Your task to perform on an android device: toggle improve location accuracy Image 0: 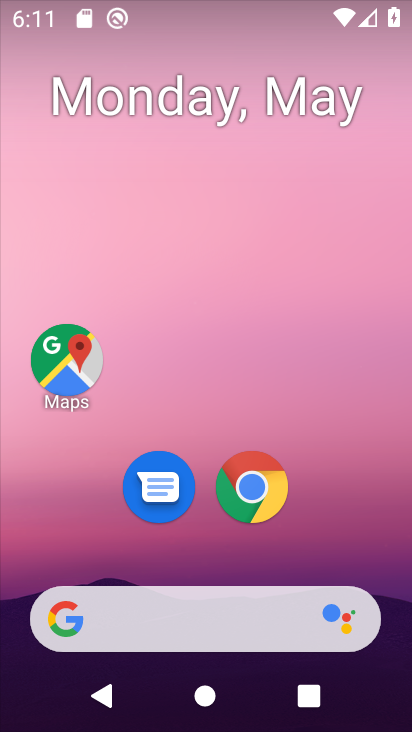
Step 0: press home button
Your task to perform on an android device: toggle improve location accuracy Image 1: 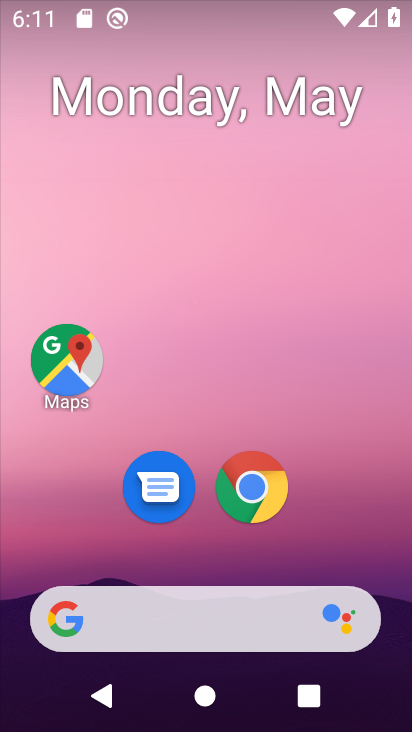
Step 1: drag from (202, 552) to (251, 83)
Your task to perform on an android device: toggle improve location accuracy Image 2: 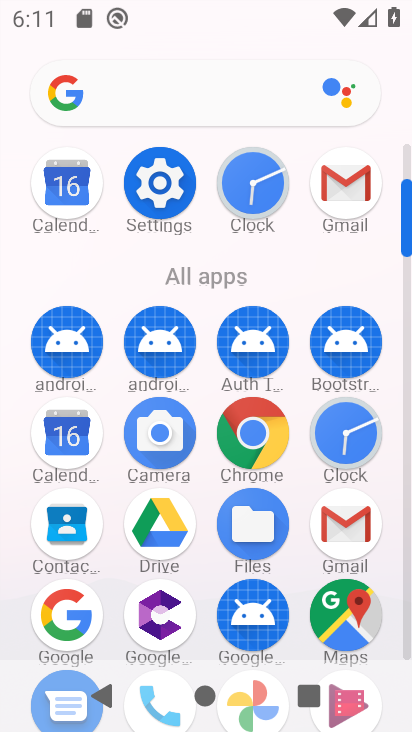
Step 2: click (158, 174)
Your task to perform on an android device: toggle improve location accuracy Image 3: 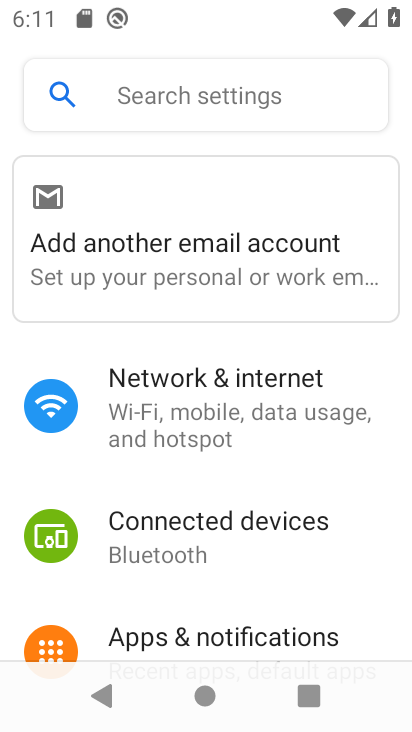
Step 3: drag from (255, 604) to (295, 314)
Your task to perform on an android device: toggle improve location accuracy Image 4: 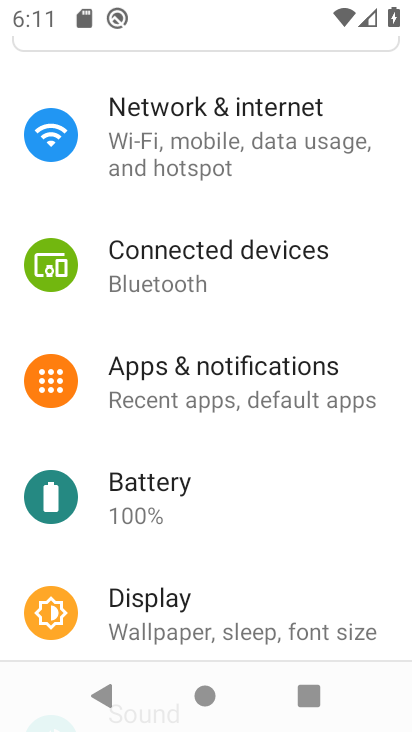
Step 4: drag from (230, 616) to (272, 200)
Your task to perform on an android device: toggle improve location accuracy Image 5: 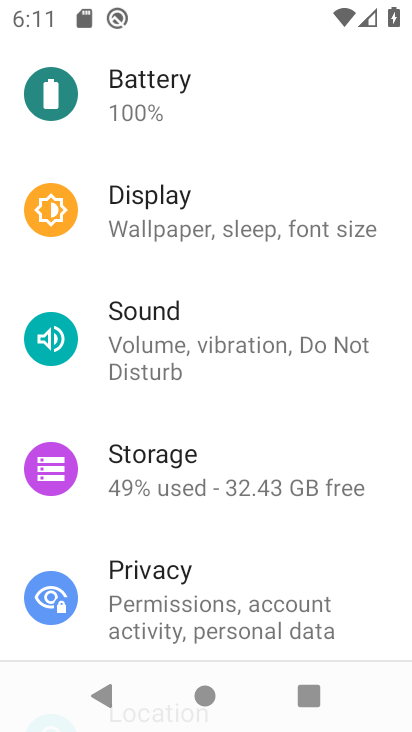
Step 5: drag from (216, 584) to (262, 225)
Your task to perform on an android device: toggle improve location accuracy Image 6: 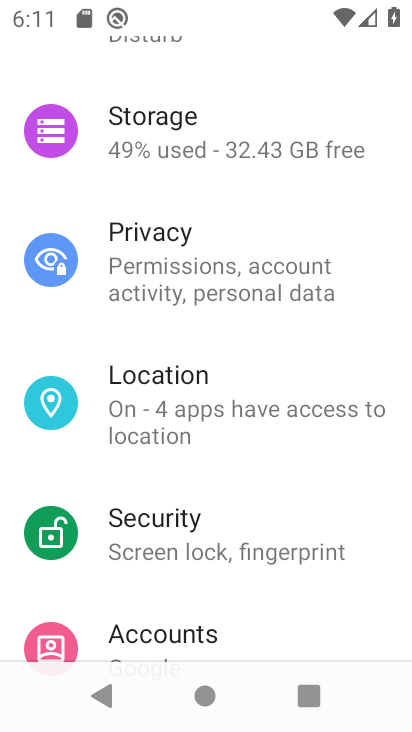
Step 6: click (235, 399)
Your task to perform on an android device: toggle improve location accuracy Image 7: 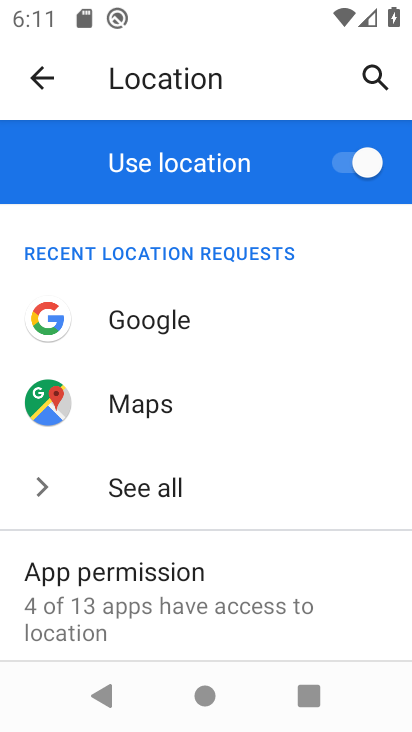
Step 7: drag from (221, 618) to (280, 289)
Your task to perform on an android device: toggle improve location accuracy Image 8: 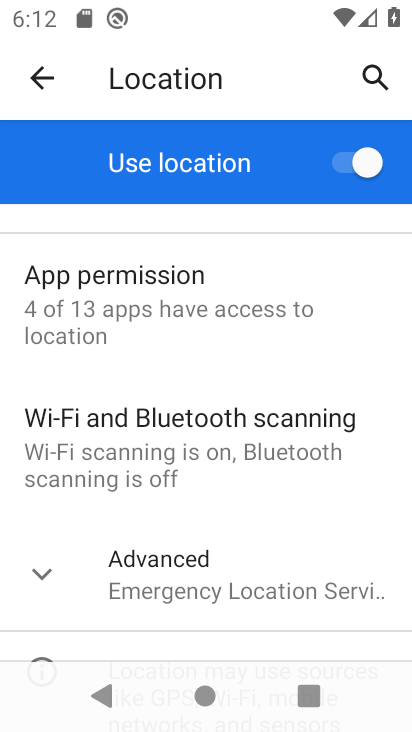
Step 8: click (45, 568)
Your task to perform on an android device: toggle improve location accuracy Image 9: 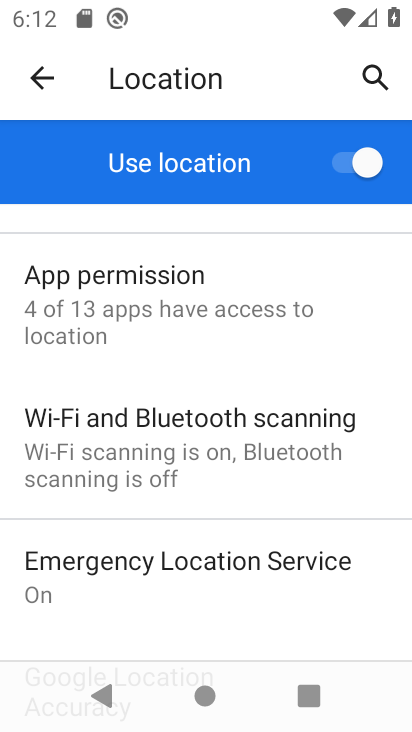
Step 9: drag from (168, 641) to (220, 335)
Your task to perform on an android device: toggle improve location accuracy Image 10: 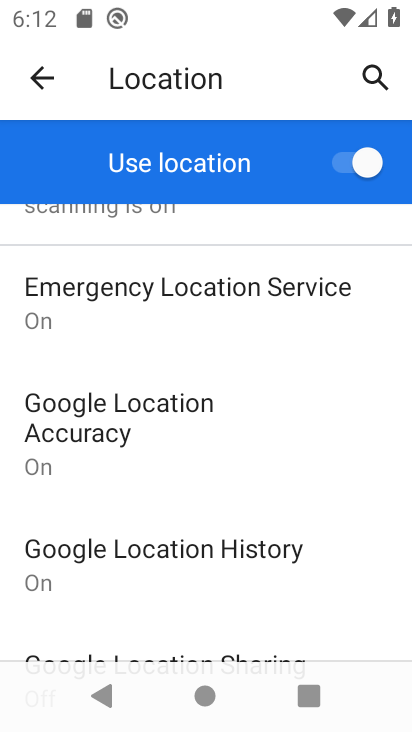
Step 10: click (151, 428)
Your task to perform on an android device: toggle improve location accuracy Image 11: 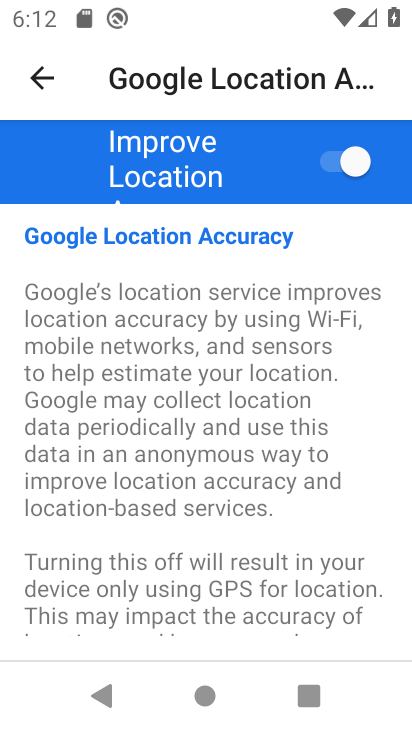
Step 11: click (329, 156)
Your task to perform on an android device: toggle improve location accuracy Image 12: 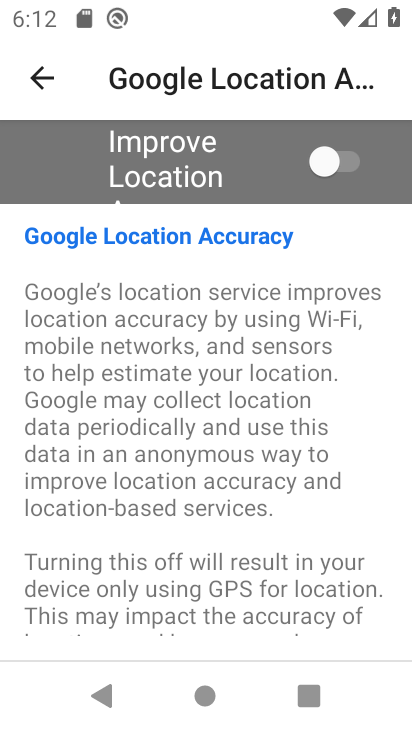
Step 12: task complete